Your task to perform on an android device: turn off airplane mode Image 0: 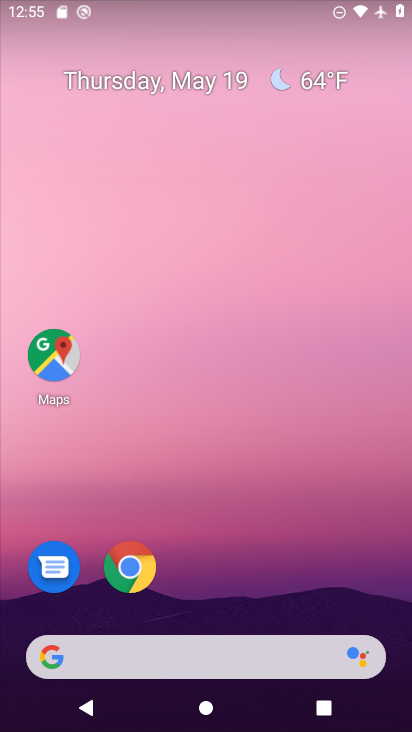
Step 0: drag from (275, 569) to (274, 91)
Your task to perform on an android device: turn off airplane mode Image 1: 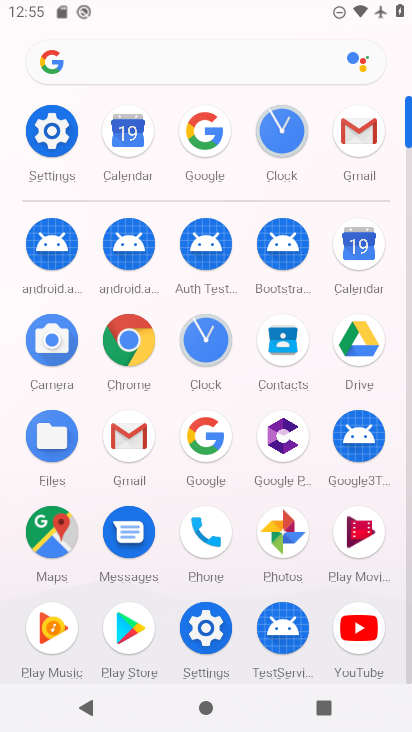
Step 1: click (66, 133)
Your task to perform on an android device: turn off airplane mode Image 2: 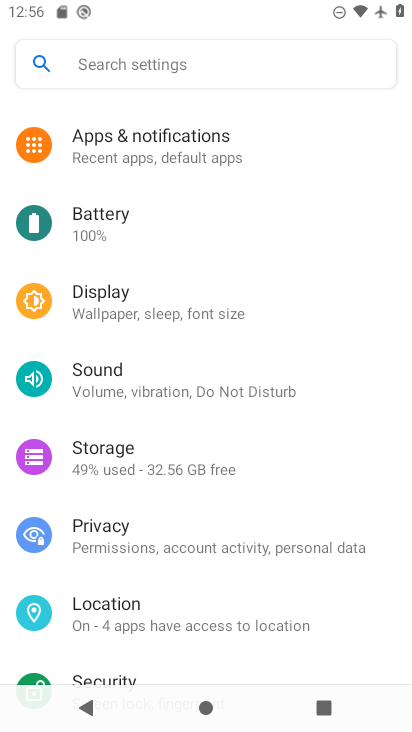
Step 2: drag from (266, 163) to (272, 594)
Your task to perform on an android device: turn off airplane mode Image 3: 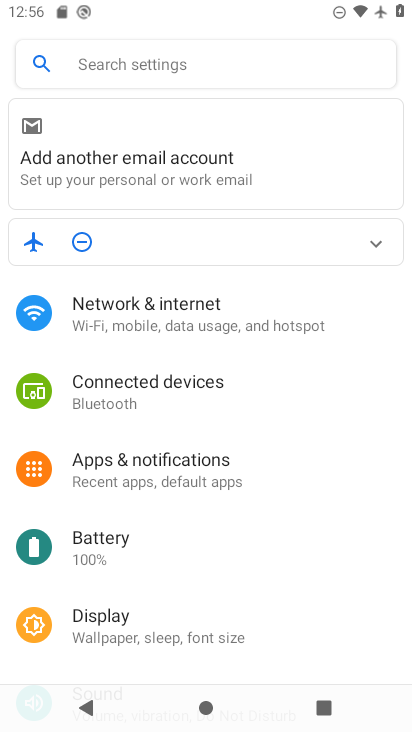
Step 3: click (232, 321)
Your task to perform on an android device: turn off airplane mode Image 4: 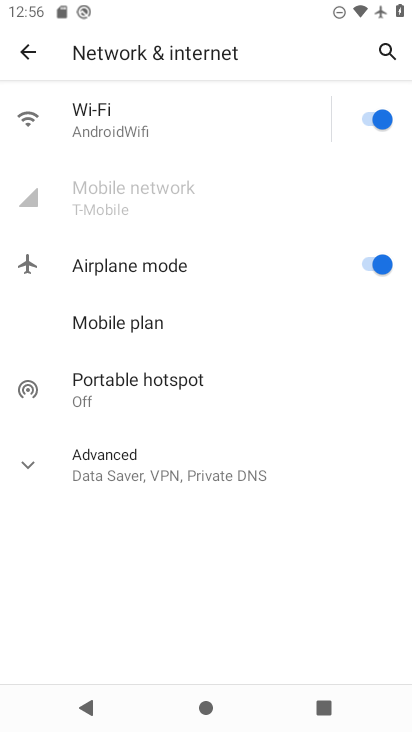
Step 4: click (376, 263)
Your task to perform on an android device: turn off airplane mode Image 5: 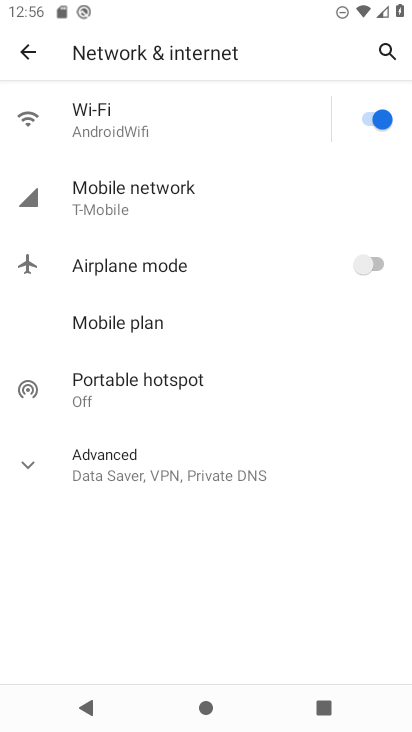
Step 5: task complete